Your task to perform on an android device: turn on showing notifications on the lock screen Image 0: 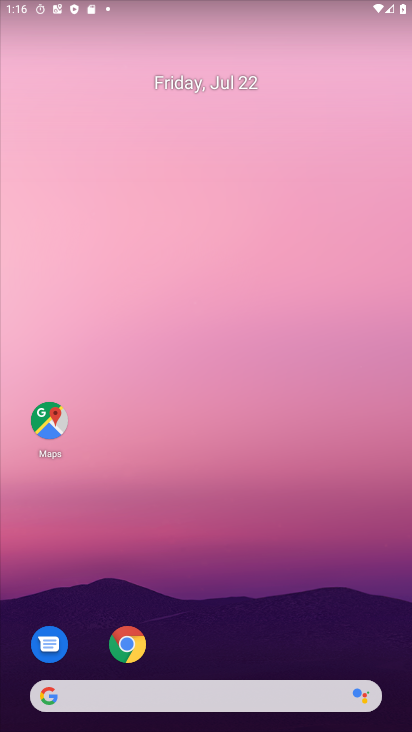
Step 0: drag from (223, 507) to (192, 198)
Your task to perform on an android device: turn on showing notifications on the lock screen Image 1: 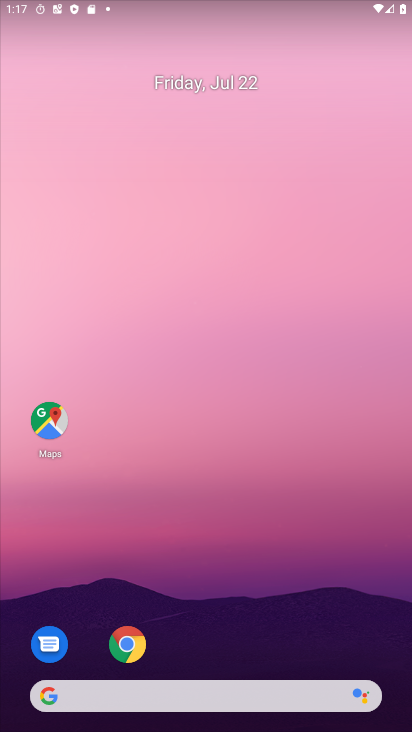
Step 1: drag from (246, 686) to (187, 116)
Your task to perform on an android device: turn on showing notifications on the lock screen Image 2: 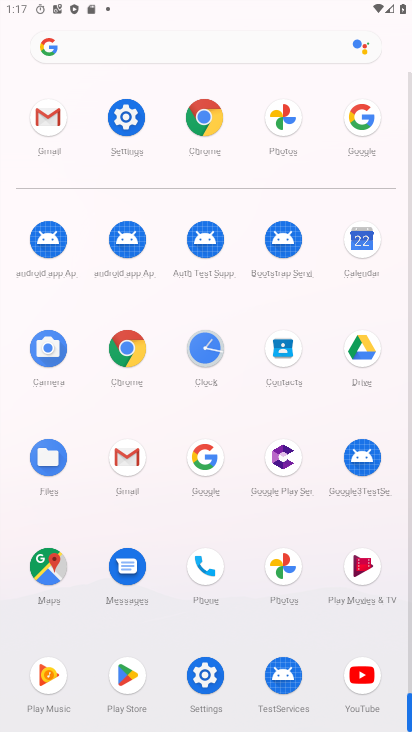
Step 2: drag from (217, 526) to (217, 382)
Your task to perform on an android device: turn on showing notifications on the lock screen Image 3: 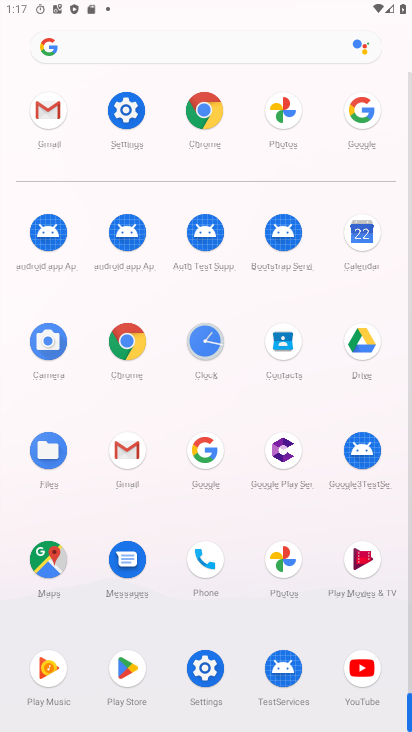
Step 3: click (141, 108)
Your task to perform on an android device: turn on showing notifications on the lock screen Image 4: 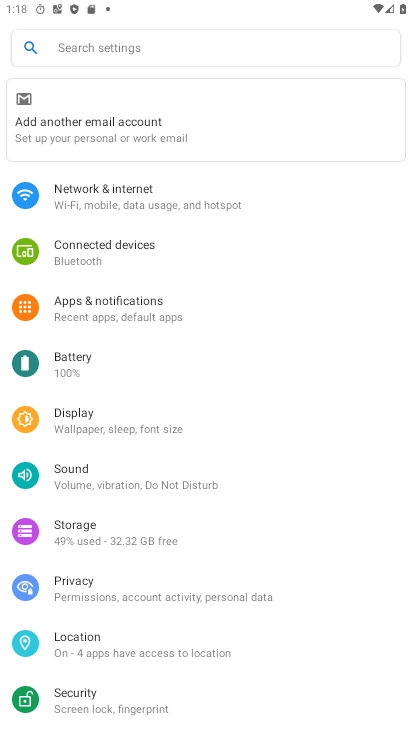
Step 4: click (139, 648)
Your task to perform on an android device: turn on showing notifications on the lock screen Image 5: 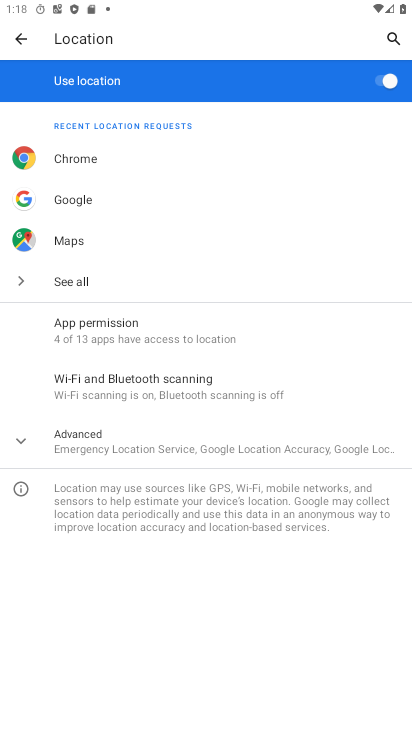
Step 5: task complete